Your task to perform on an android device: change the clock display to digital Image 0: 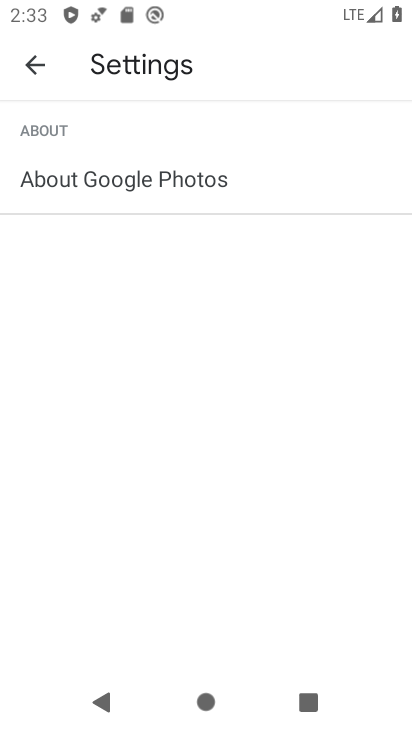
Step 0: press home button
Your task to perform on an android device: change the clock display to digital Image 1: 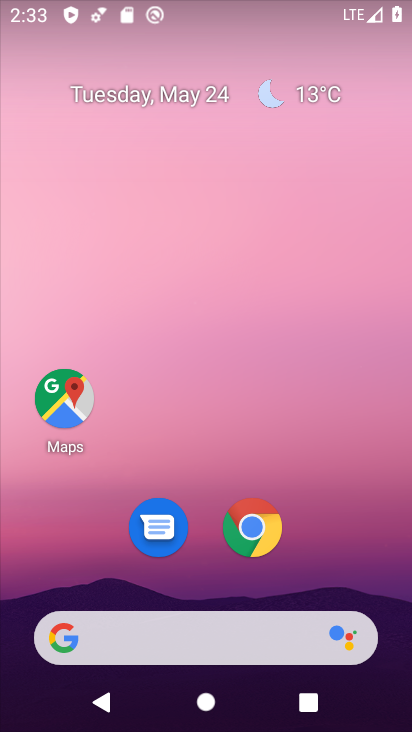
Step 1: drag from (208, 577) to (208, 11)
Your task to perform on an android device: change the clock display to digital Image 2: 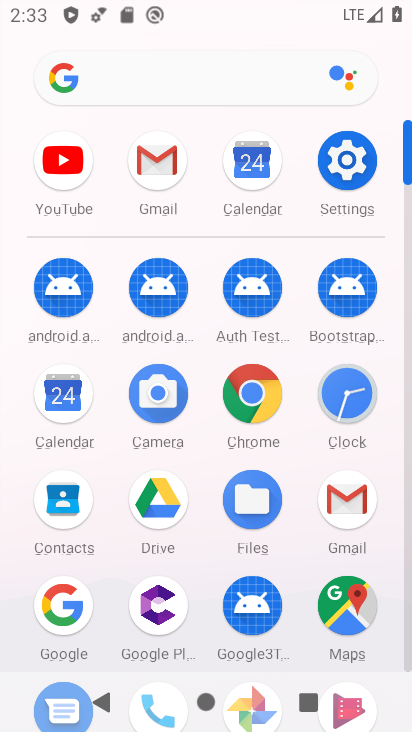
Step 2: click (355, 393)
Your task to perform on an android device: change the clock display to digital Image 3: 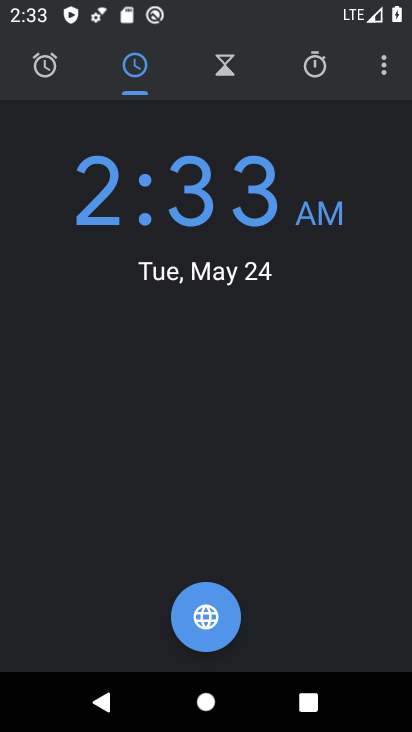
Step 3: click (380, 58)
Your task to perform on an android device: change the clock display to digital Image 4: 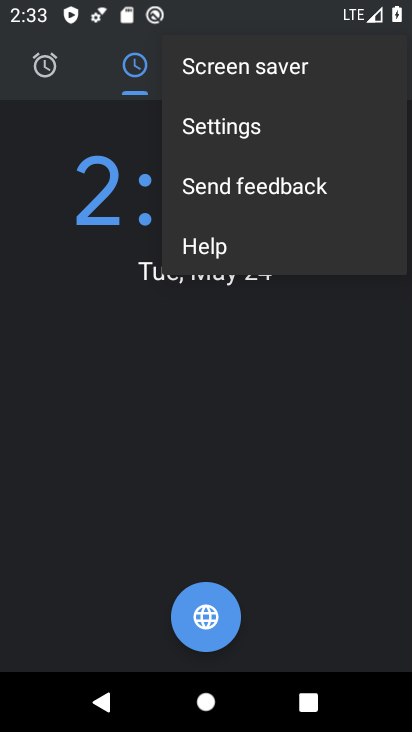
Step 4: click (283, 125)
Your task to perform on an android device: change the clock display to digital Image 5: 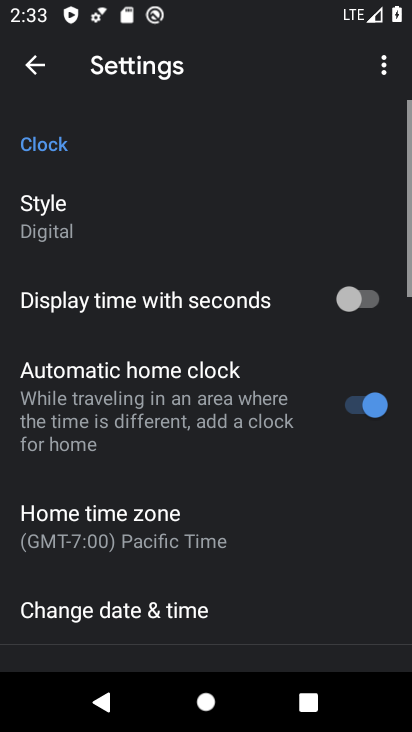
Step 5: click (30, 211)
Your task to perform on an android device: change the clock display to digital Image 6: 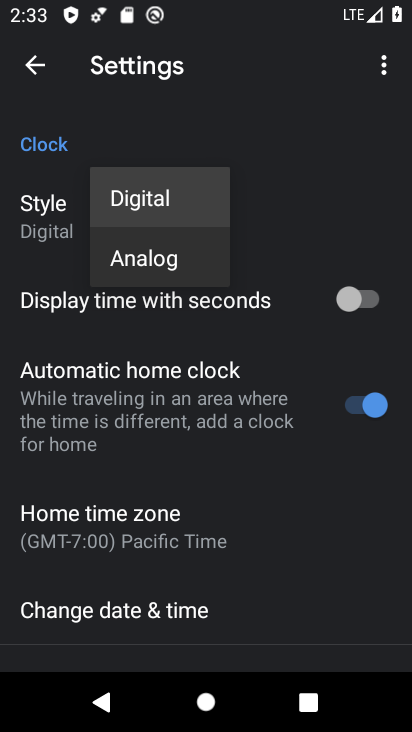
Step 6: click (169, 208)
Your task to perform on an android device: change the clock display to digital Image 7: 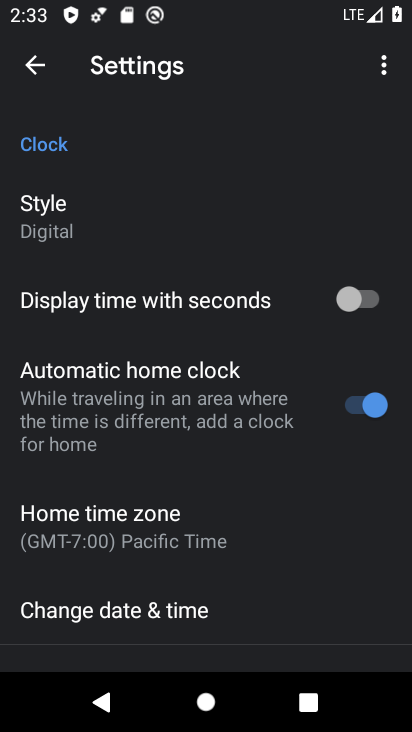
Step 7: task complete